Your task to perform on an android device: Open the calendar and show me this week's events Image 0: 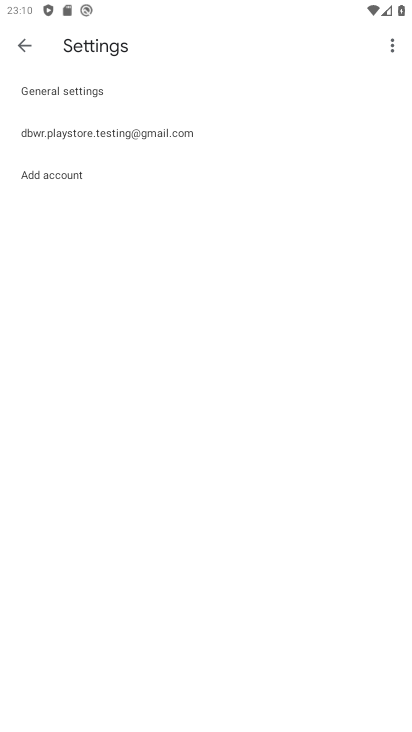
Step 0: press home button
Your task to perform on an android device: Open the calendar and show me this week's events Image 1: 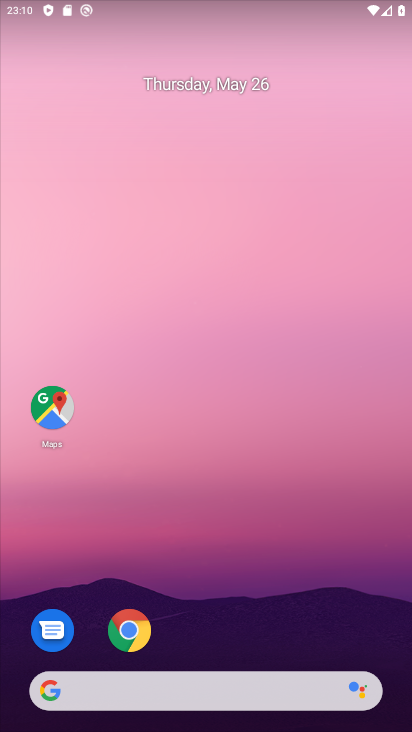
Step 1: drag from (283, 587) to (226, 21)
Your task to perform on an android device: Open the calendar and show me this week's events Image 2: 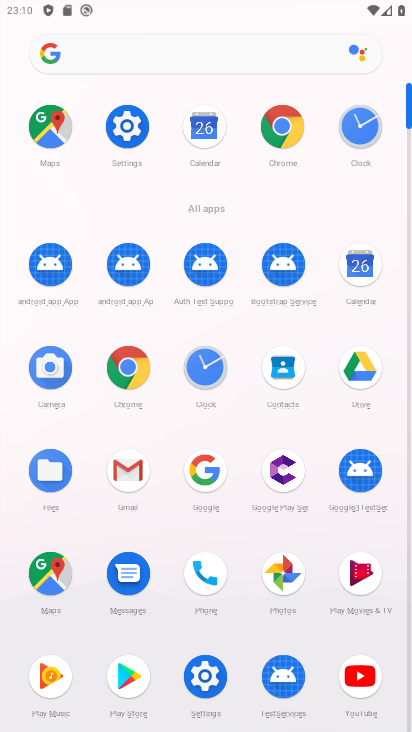
Step 2: click (359, 265)
Your task to perform on an android device: Open the calendar and show me this week's events Image 3: 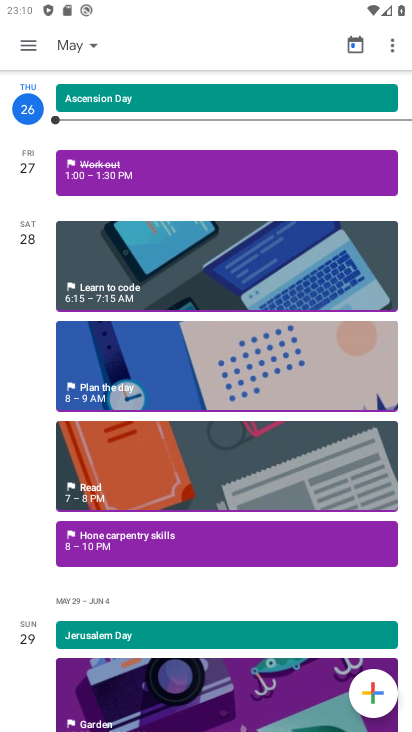
Step 3: click (95, 46)
Your task to perform on an android device: Open the calendar and show me this week's events Image 4: 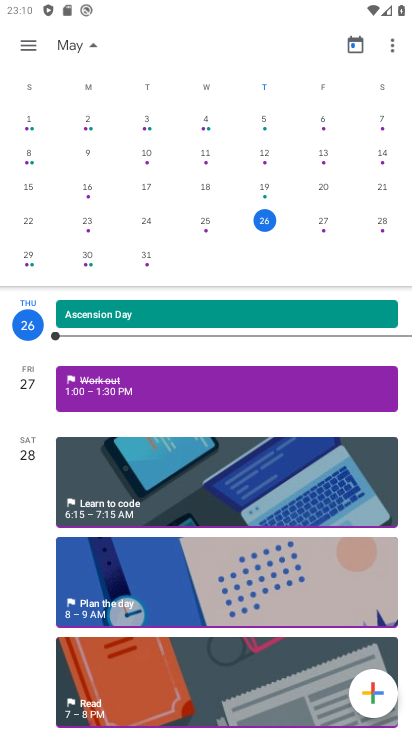
Step 4: click (23, 42)
Your task to perform on an android device: Open the calendar and show me this week's events Image 5: 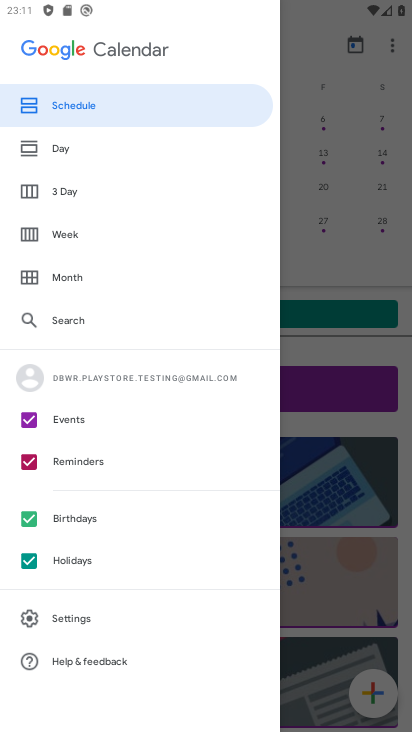
Step 5: click (119, 103)
Your task to perform on an android device: Open the calendar and show me this week's events Image 6: 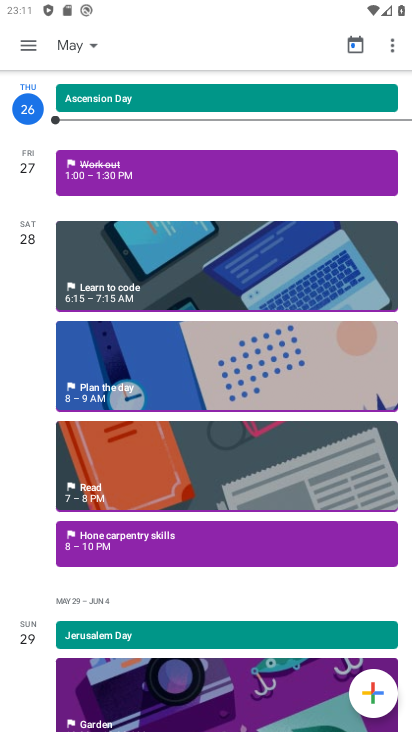
Step 6: task complete